Your task to perform on an android device: turn off improve location accuracy Image 0: 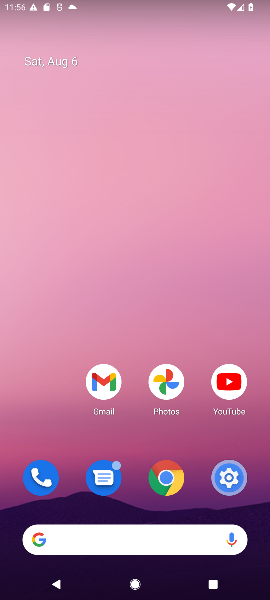
Step 0: click (236, 481)
Your task to perform on an android device: turn off improve location accuracy Image 1: 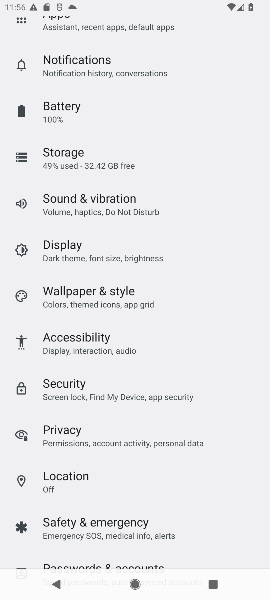
Step 1: click (77, 473)
Your task to perform on an android device: turn off improve location accuracy Image 2: 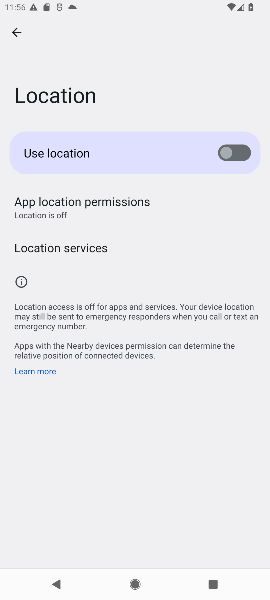
Step 2: task complete